Your task to perform on an android device: What is the news today? Image 0: 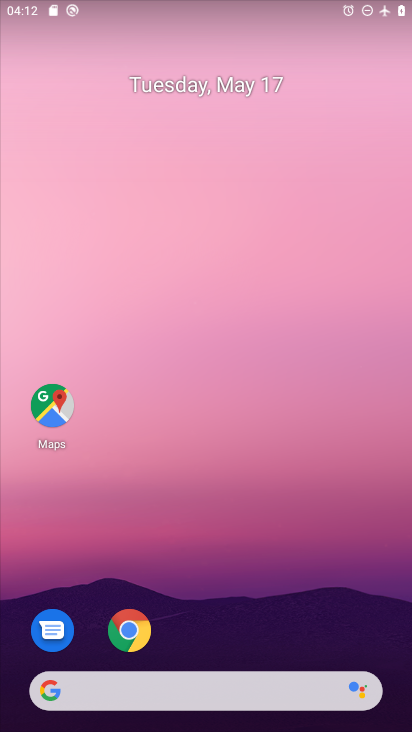
Step 0: click (172, 686)
Your task to perform on an android device: What is the news today? Image 1: 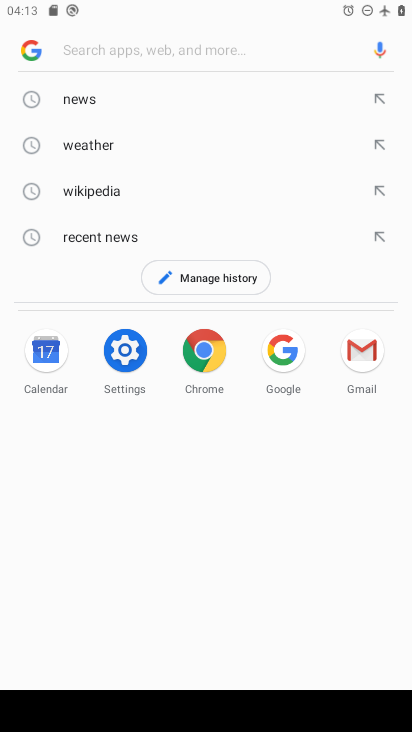
Step 1: type "news today"
Your task to perform on an android device: What is the news today? Image 2: 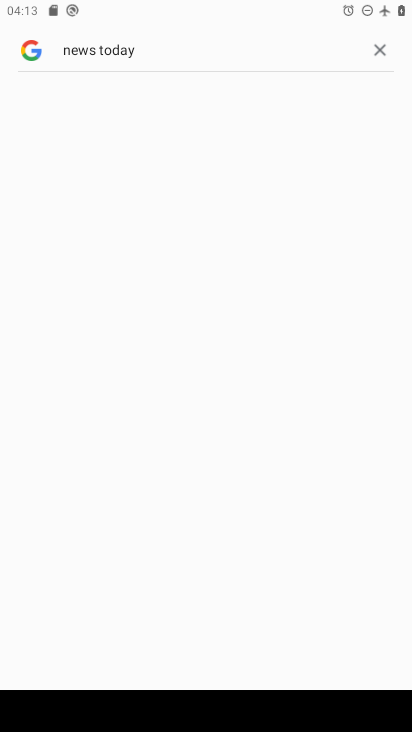
Step 2: click (154, 56)
Your task to perform on an android device: What is the news today? Image 3: 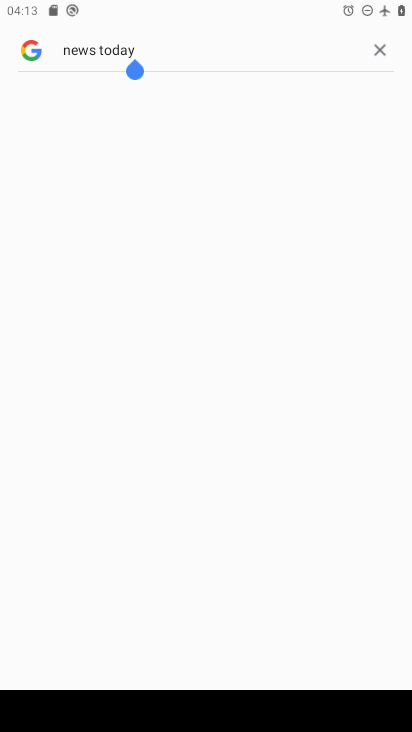
Step 3: task complete